Your task to perform on an android device: turn vacation reply on in the gmail app Image 0: 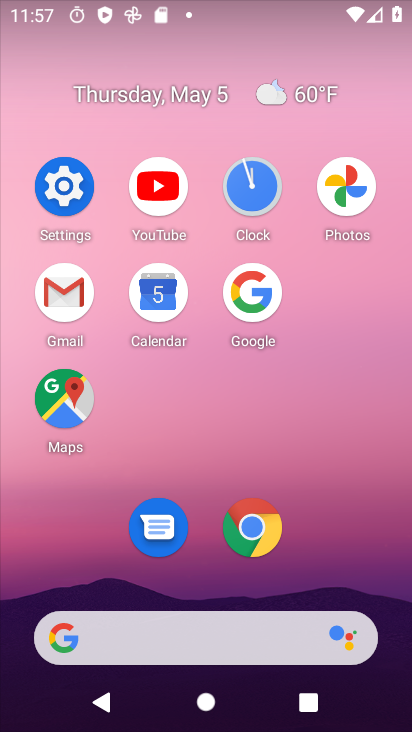
Step 0: click (74, 288)
Your task to perform on an android device: turn vacation reply on in the gmail app Image 1: 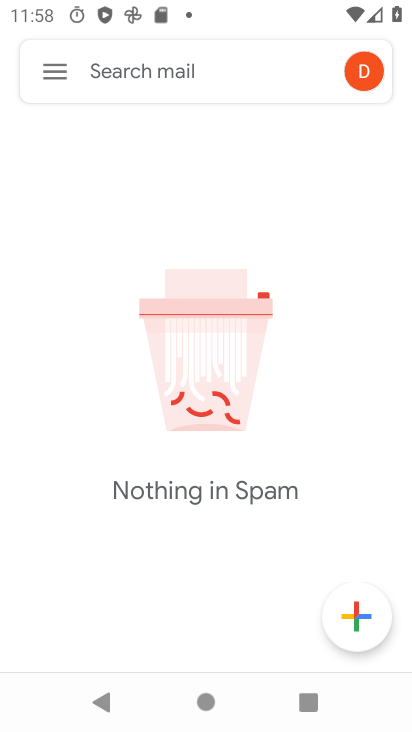
Step 1: click (71, 81)
Your task to perform on an android device: turn vacation reply on in the gmail app Image 2: 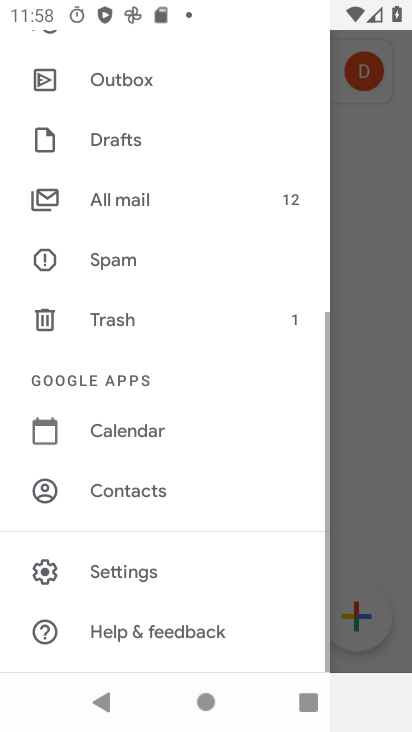
Step 2: click (183, 556)
Your task to perform on an android device: turn vacation reply on in the gmail app Image 3: 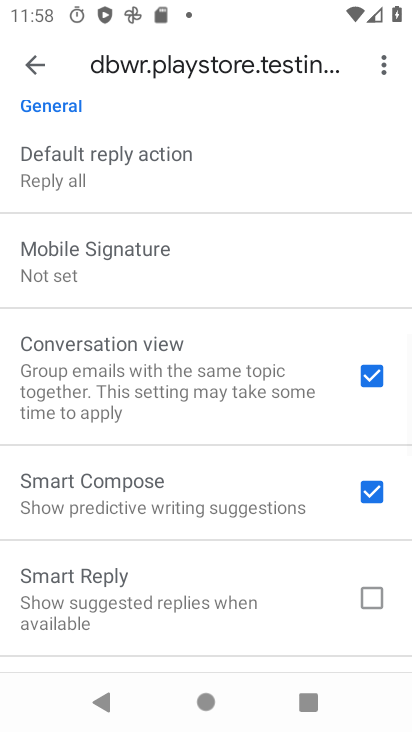
Step 3: drag from (183, 556) to (201, 153)
Your task to perform on an android device: turn vacation reply on in the gmail app Image 4: 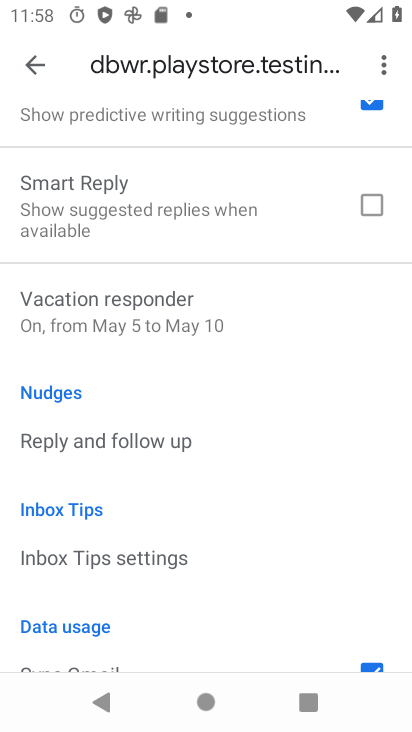
Step 4: click (215, 344)
Your task to perform on an android device: turn vacation reply on in the gmail app Image 5: 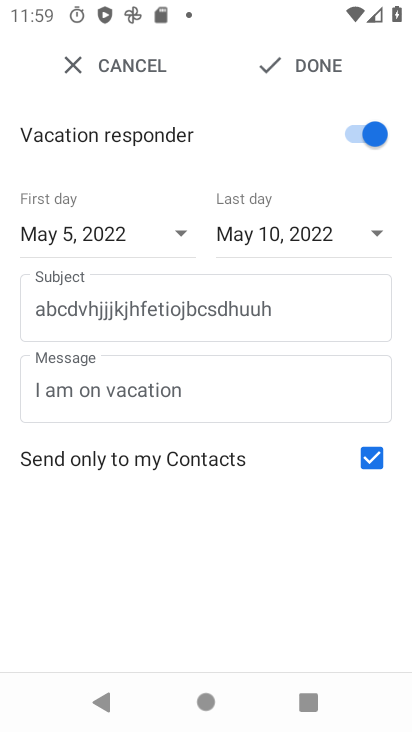
Step 5: task complete